Your task to perform on an android device: Open maps Image 0: 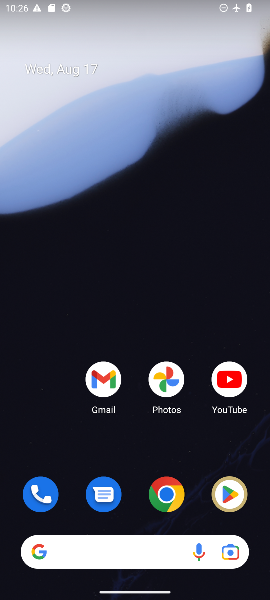
Step 0: drag from (140, 435) to (185, 77)
Your task to perform on an android device: Open maps Image 1: 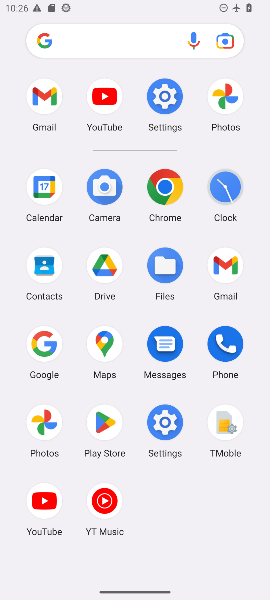
Step 1: click (100, 337)
Your task to perform on an android device: Open maps Image 2: 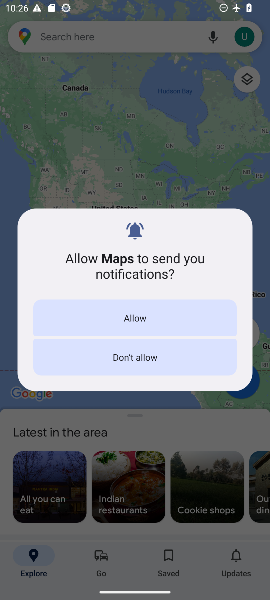
Step 2: click (197, 309)
Your task to perform on an android device: Open maps Image 3: 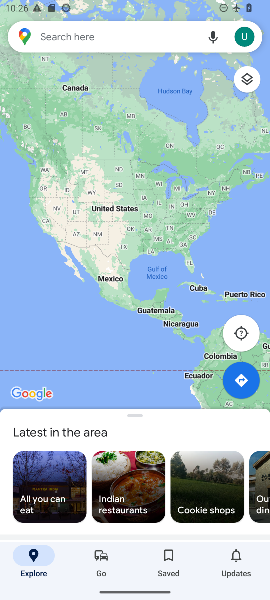
Step 3: task complete